Your task to perform on an android device: Check the weather Image 0: 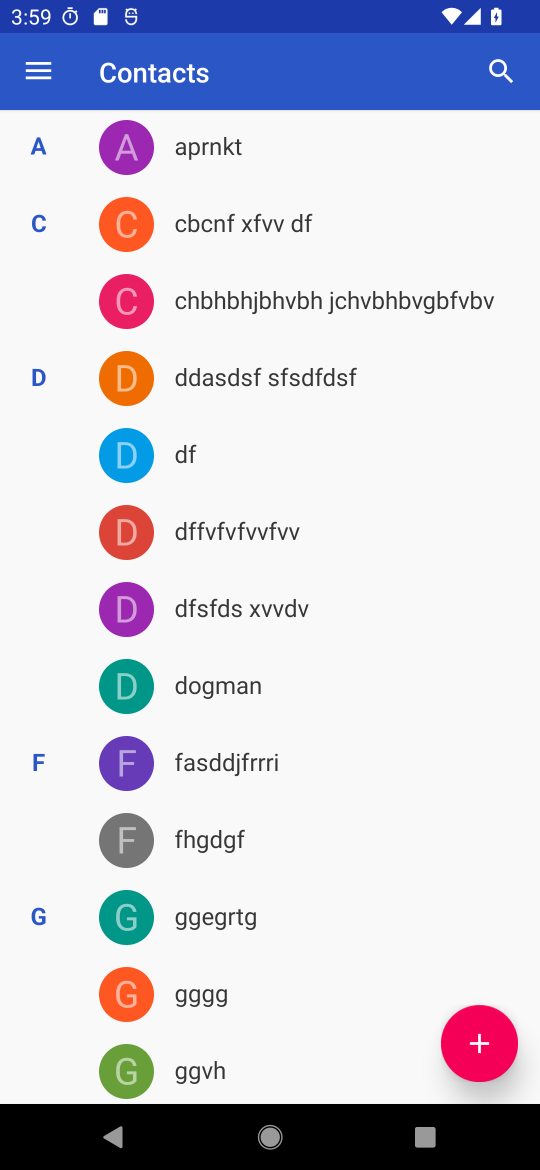
Step 0: press home button
Your task to perform on an android device: Check the weather Image 1: 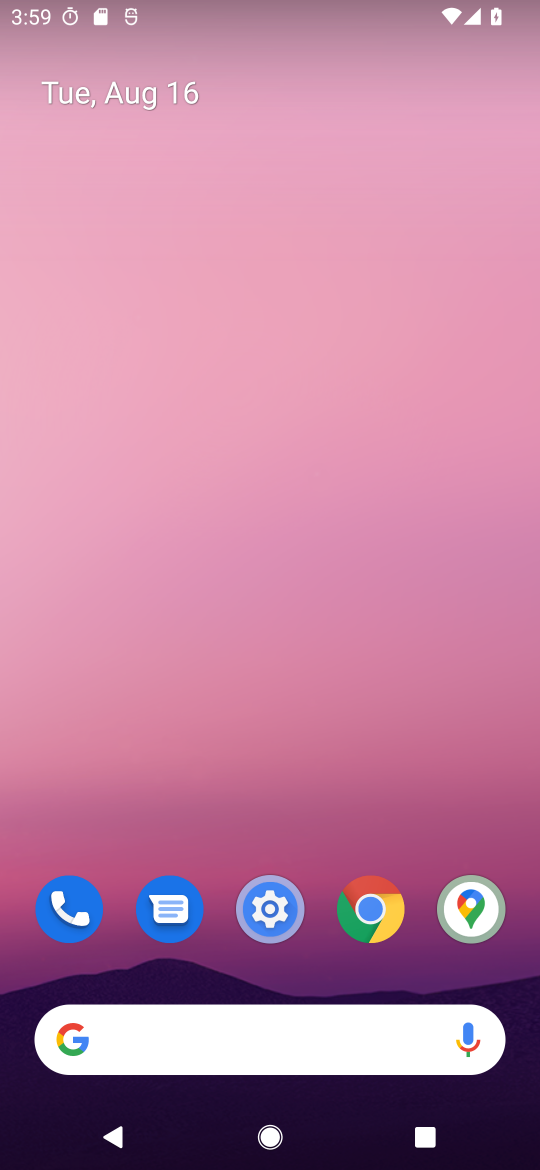
Step 1: click (199, 1034)
Your task to perform on an android device: Check the weather Image 2: 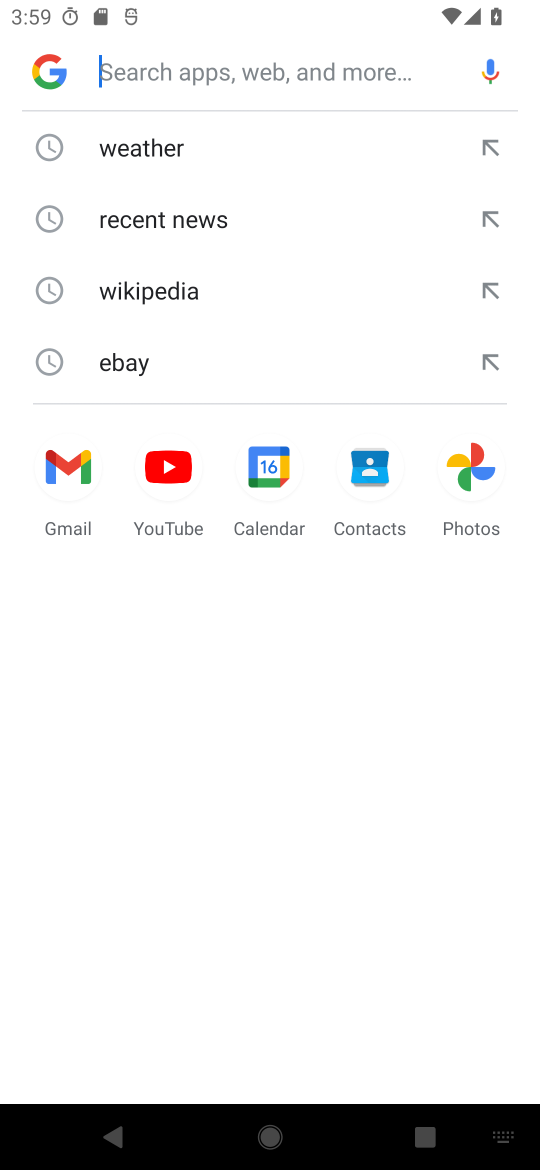
Step 2: click (132, 142)
Your task to perform on an android device: Check the weather Image 3: 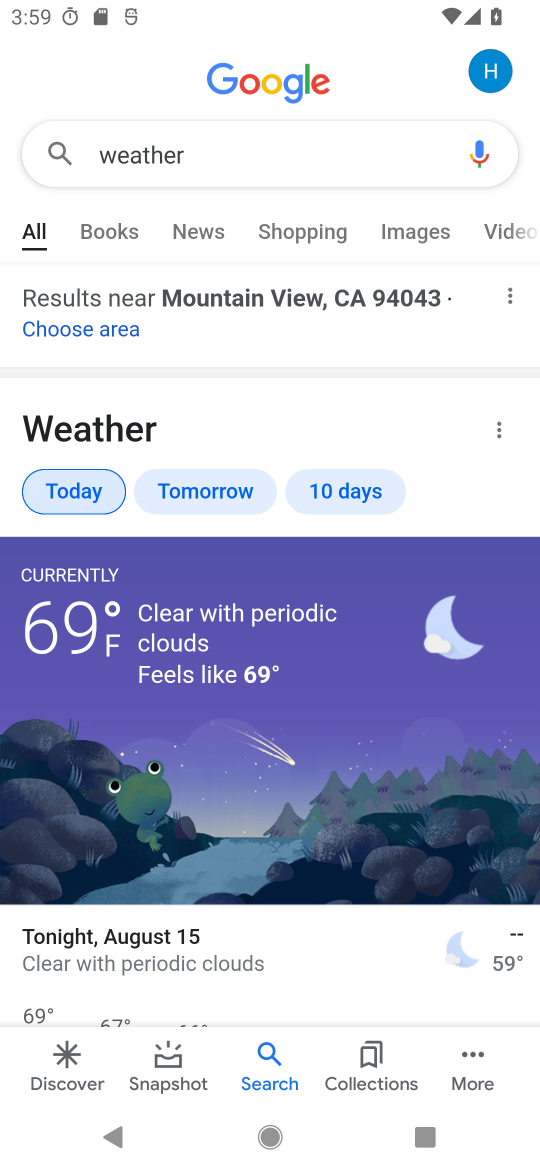
Step 3: task complete